Your task to perform on an android device: turn notification dots off Image 0: 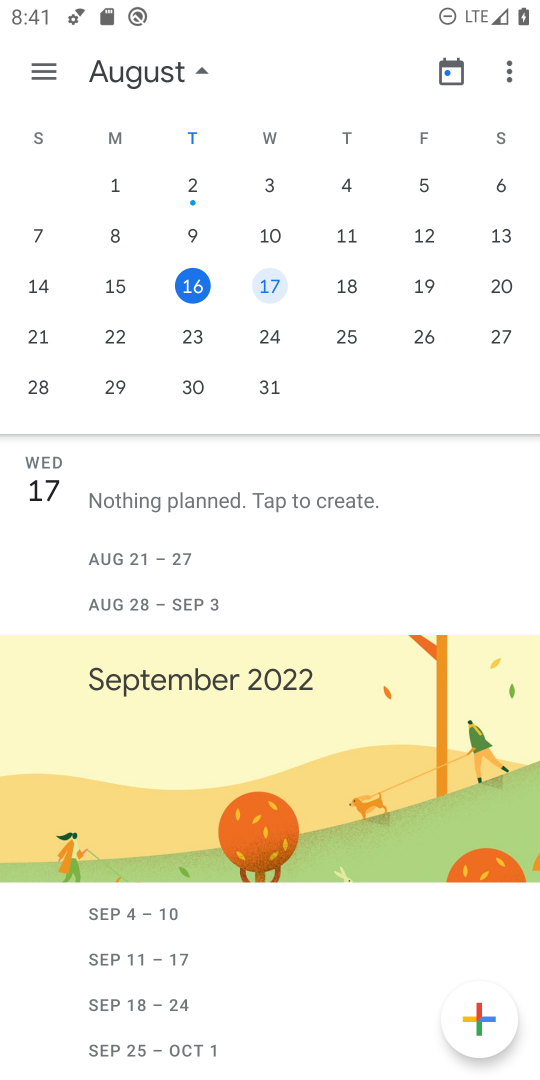
Step 0: press home button
Your task to perform on an android device: turn notification dots off Image 1: 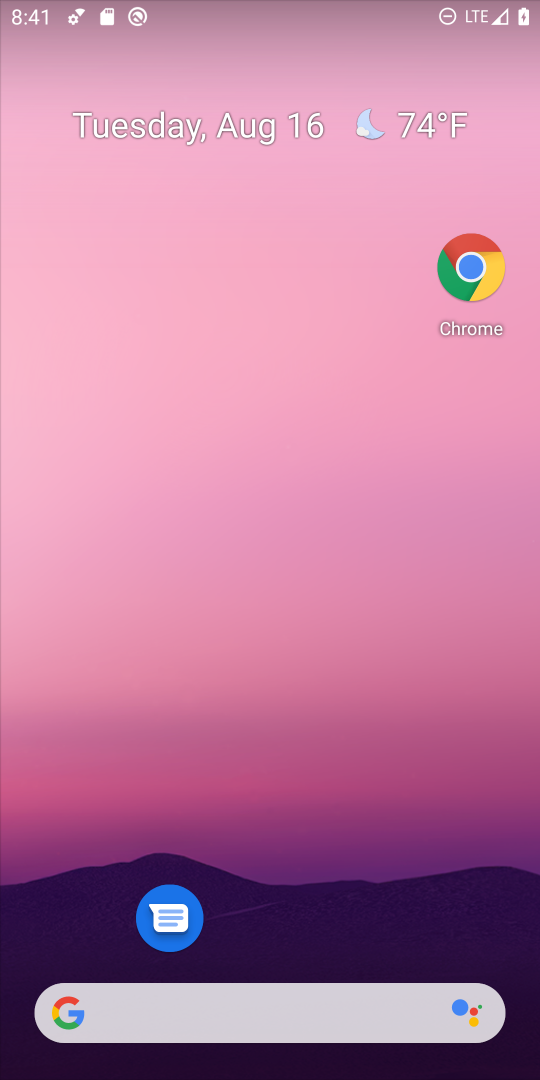
Step 1: drag from (297, 963) to (345, 127)
Your task to perform on an android device: turn notification dots off Image 2: 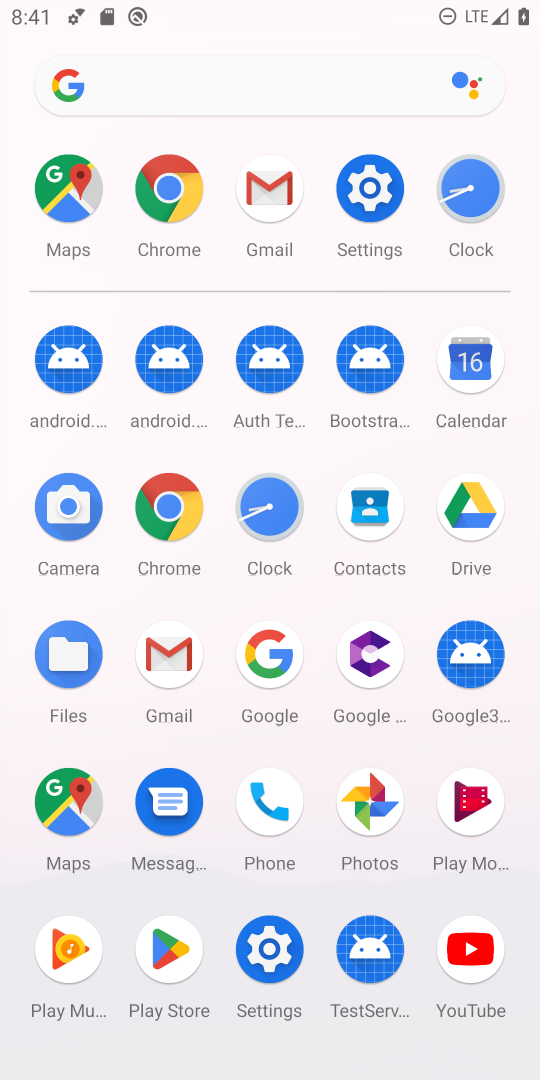
Step 2: click (376, 215)
Your task to perform on an android device: turn notification dots off Image 3: 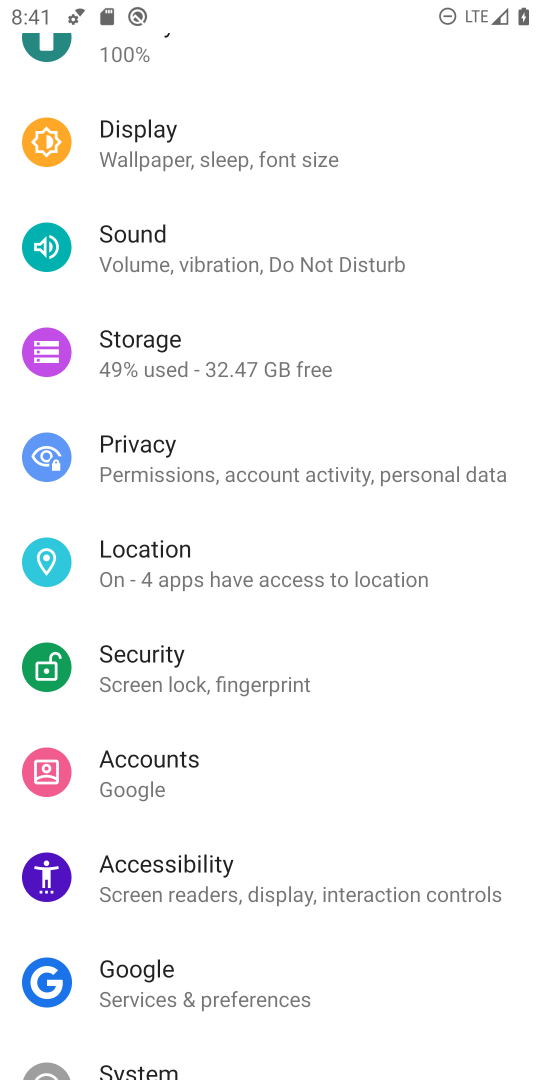
Step 3: drag from (286, 274) to (222, 638)
Your task to perform on an android device: turn notification dots off Image 4: 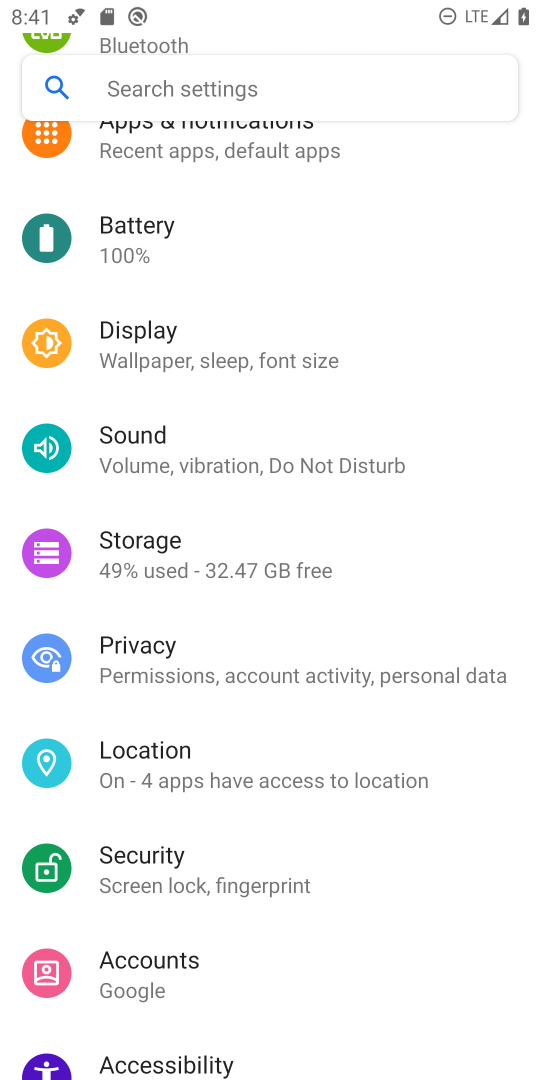
Step 4: click (222, 159)
Your task to perform on an android device: turn notification dots off Image 5: 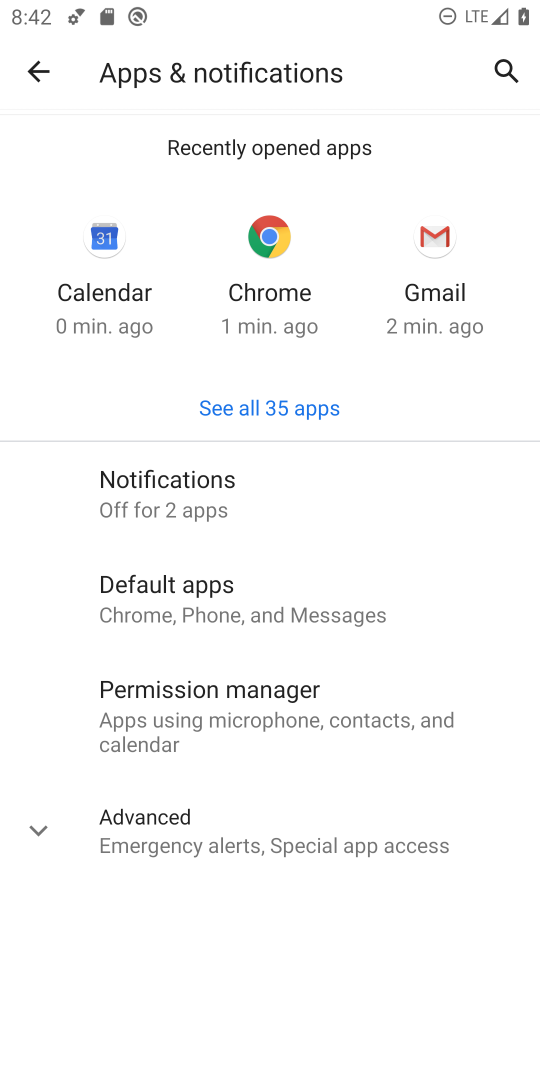
Step 5: click (203, 474)
Your task to perform on an android device: turn notification dots off Image 6: 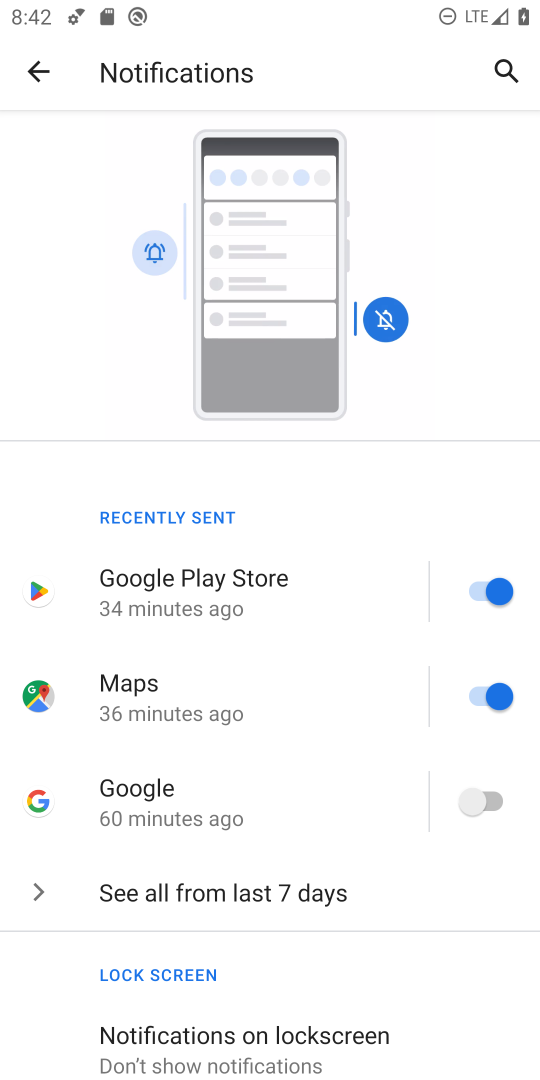
Step 6: drag from (209, 907) to (256, 385)
Your task to perform on an android device: turn notification dots off Image 7: 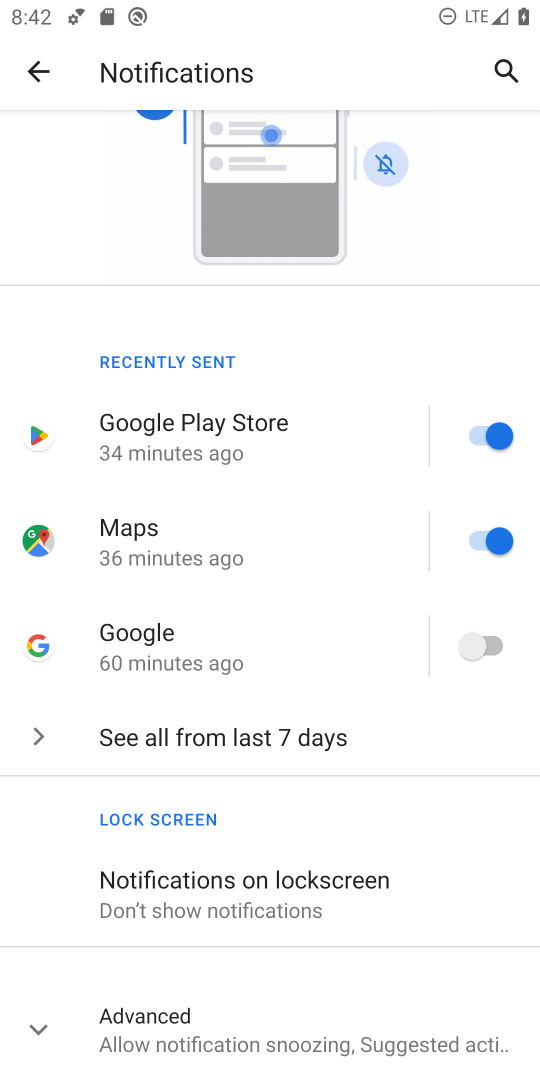
Step 7: click (185, 1011)
Your task to perform on an android device: turn notification dots off Image 8: 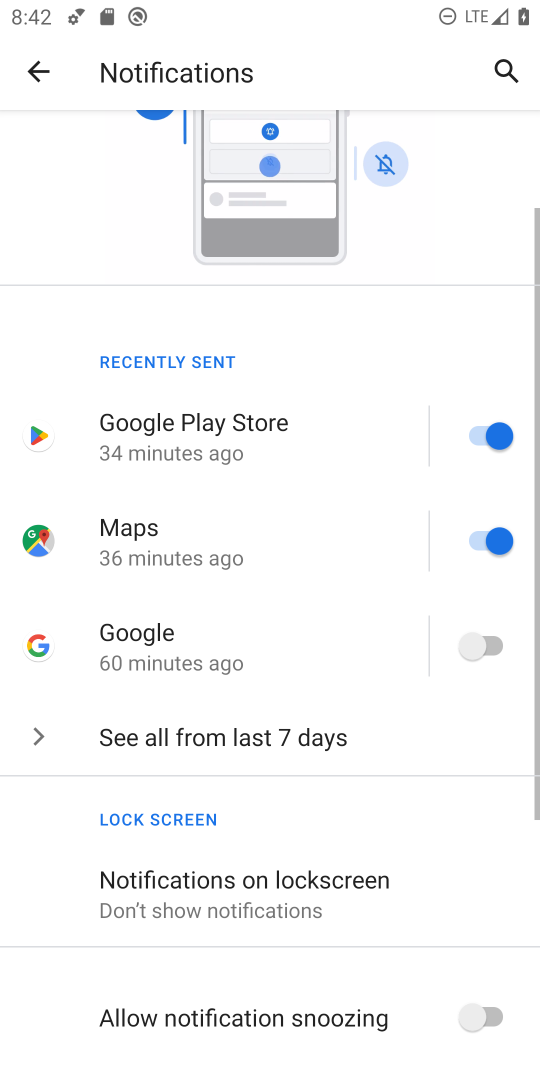
Step 8: task complete